Your task to perform on an android device: Open CNN.com Image 0: 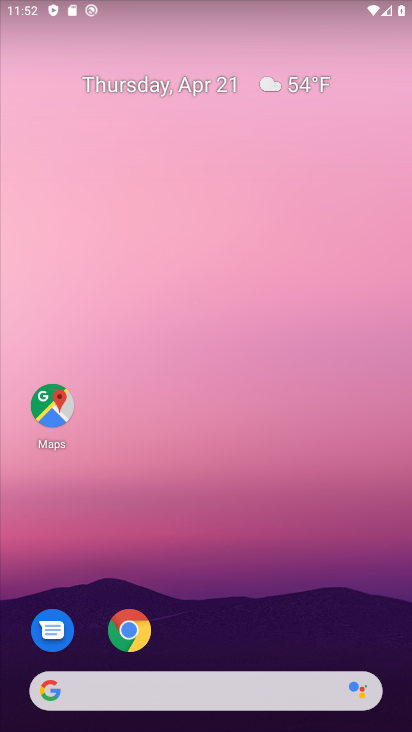
Step 0: click (132, 630)
Your task to perform on an android device: Open CNN.com Image 1: 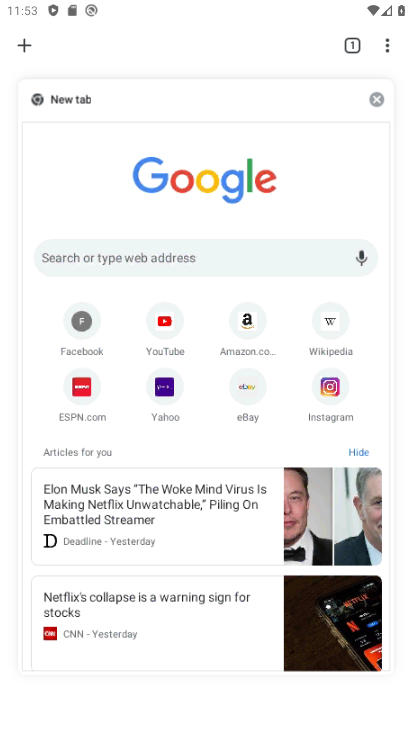
Step 1: click (129, 253)
Your task to perform on an android device: Open CNN.com Image 2: 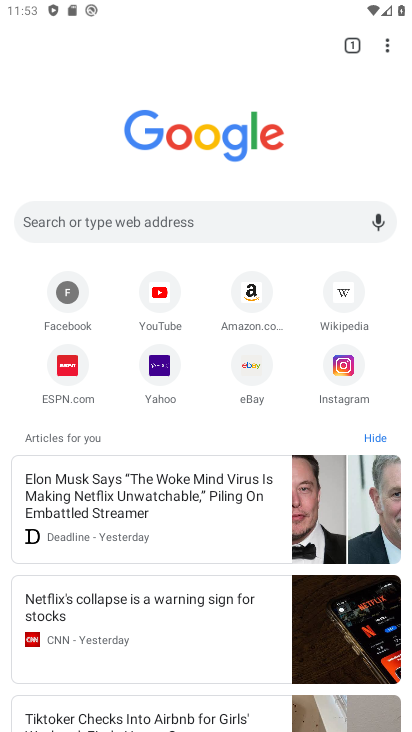
Step 2: type "CNN.com"
Your task to perform on an android device: Open CNN.com Image 3: 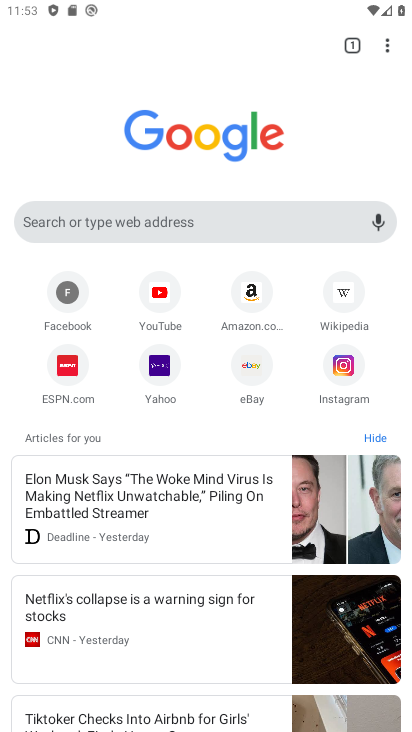
Step 3: click (66, 226)
Your task to perform on an android device: Open CNN.com Image 4: 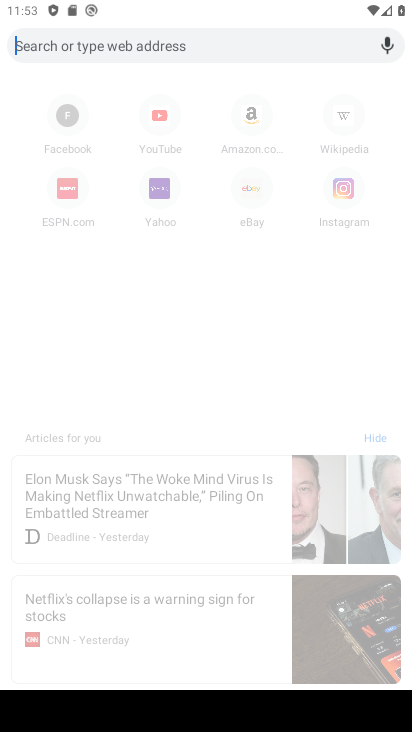
Step 4: type "cnn.com"
Your task to perform on an android device: Open CNN.com Image 5: 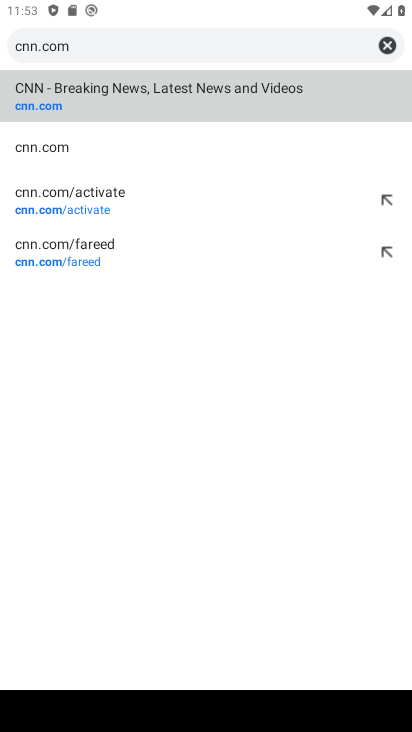
Step 5: click (37, 148)
Your task to perform on an android device: Open CNN.com Image 6: 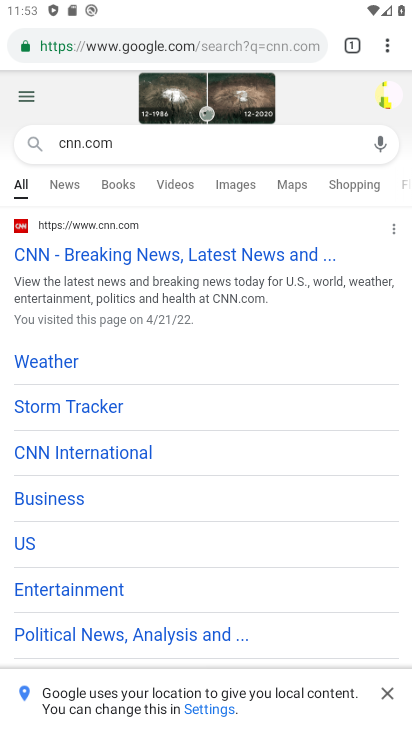
Step 6: click (166, 261)
Your task to perform on an android device: Open CNN.com Image 7: 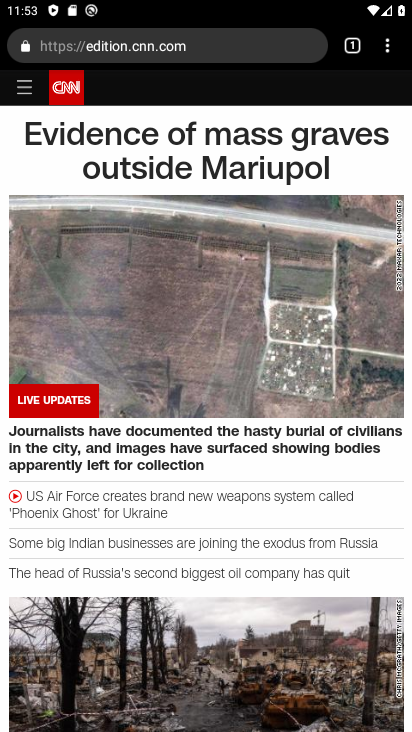
Step 7: task complete